Your task to perform on an android device: delete a single message in the gmail app Image 0: 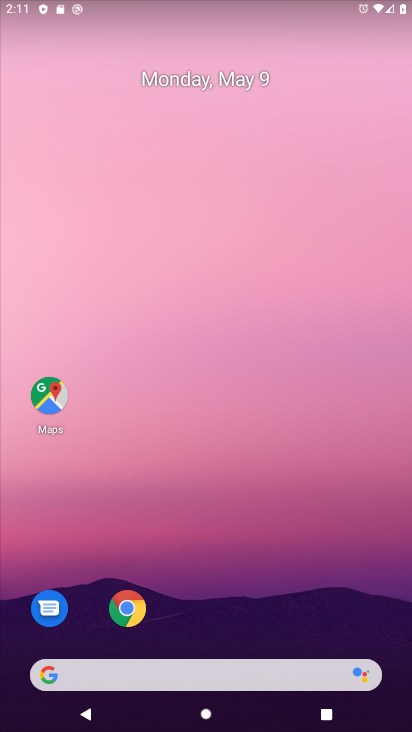
Step 0: drag from (186, 639) to (187, 98)
Your task to perform on an android device: delete a single message in the gmail app Image 1: 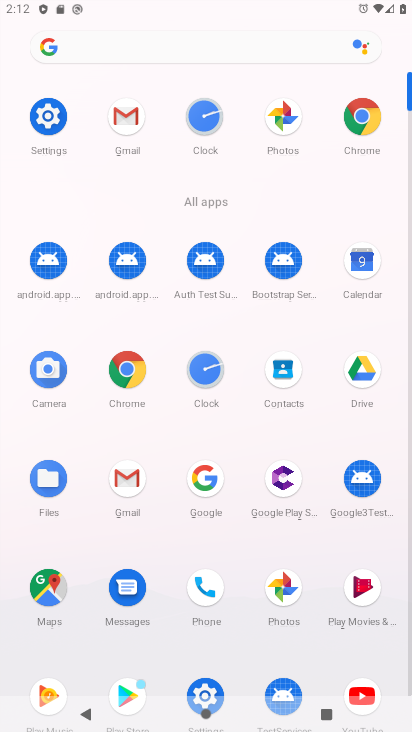
Step 1: click (135, 124)
Your task to perform on an android device: delete a single message in the gmail app Image 2: 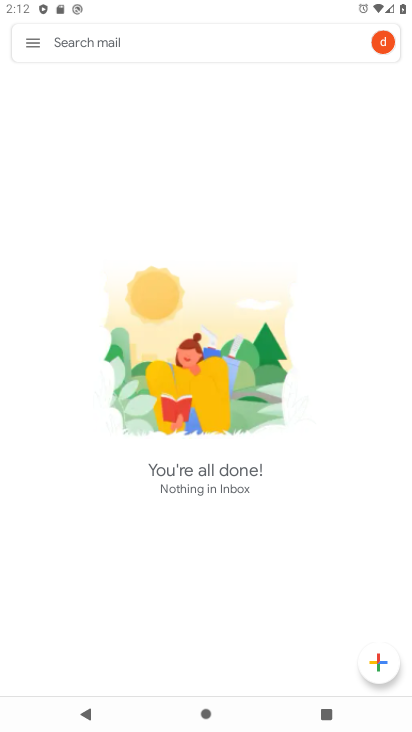
Step 2: task complete